Your task to perform on an android device: check battery use Image 0: 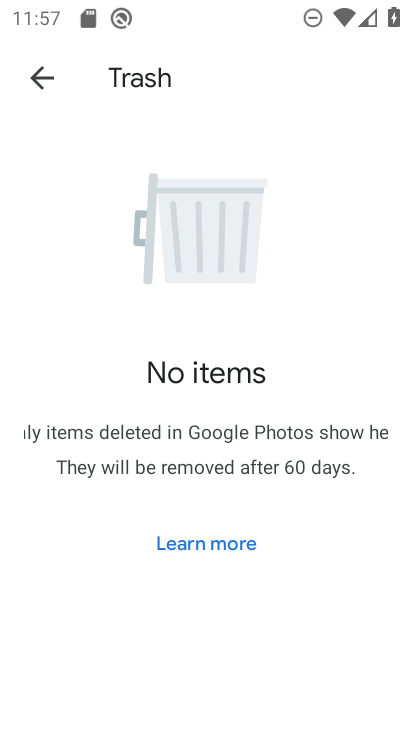
Step 0: press home button
Your task to perform on an android device: check battery use Image 1: 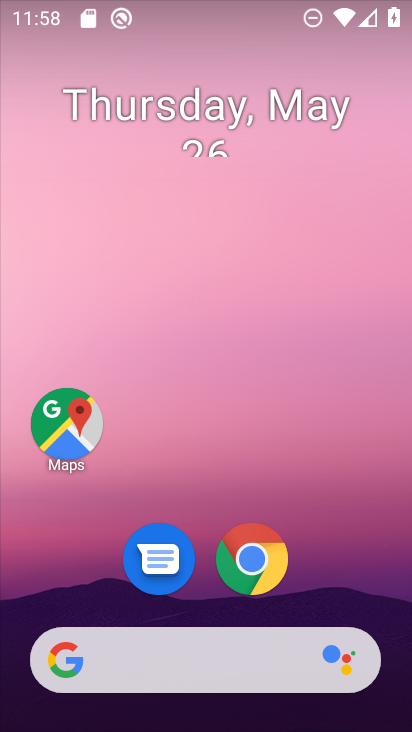
Step 1: drag from (337, 543) to (286, 0)
Your task to perform on an android device: check battery use Image 2: 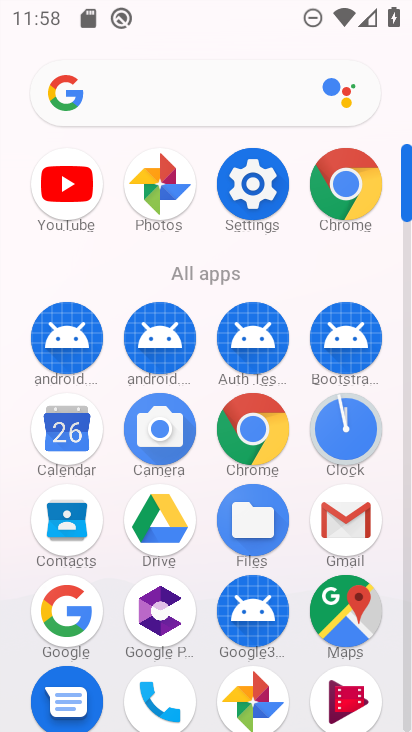
Step 2: click (254, 205)
Your task to perform on an android device: check battery use Image 3: 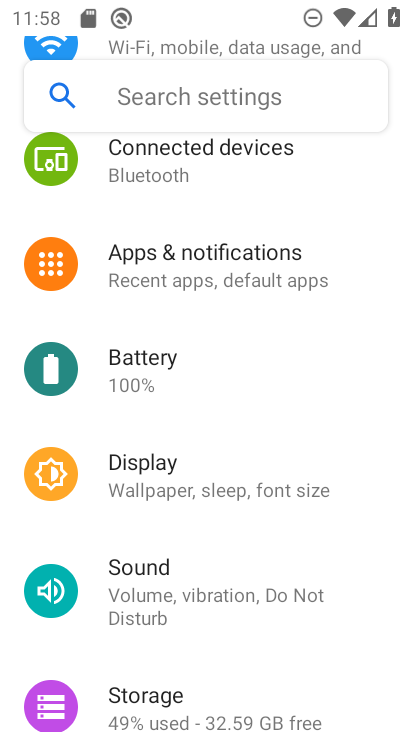
Step 3: click (152, 373)
Your task to perform on an android device: check battery use Image 4: 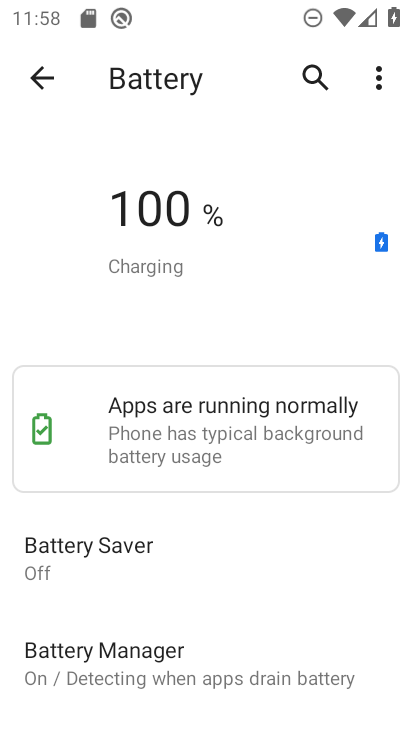
Step 4: task complete